Your task to perform on an android device: install app "Adobe Acrobat Reader" Image 0: 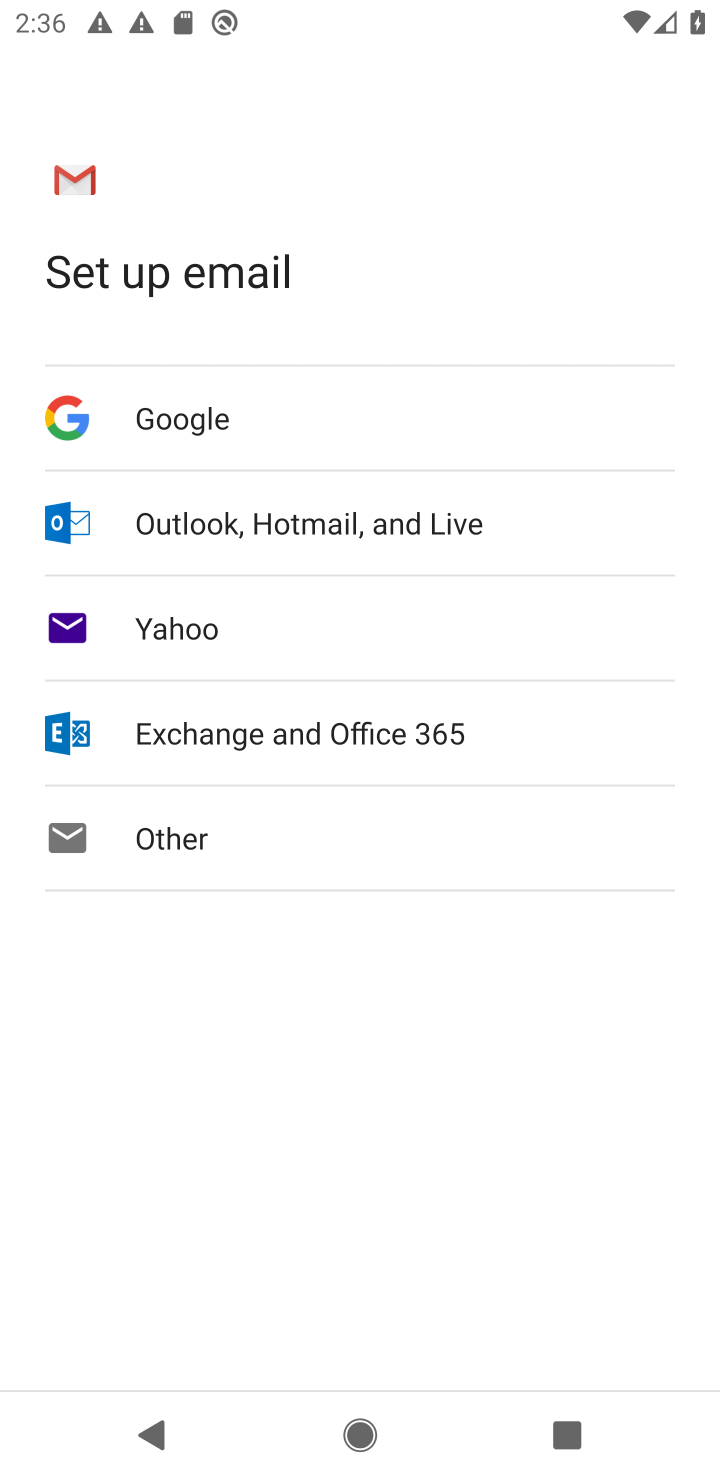
Step 0: press home button
Your task to perform on an android device: install app "Adobe Acrobat Reader" Image 1: 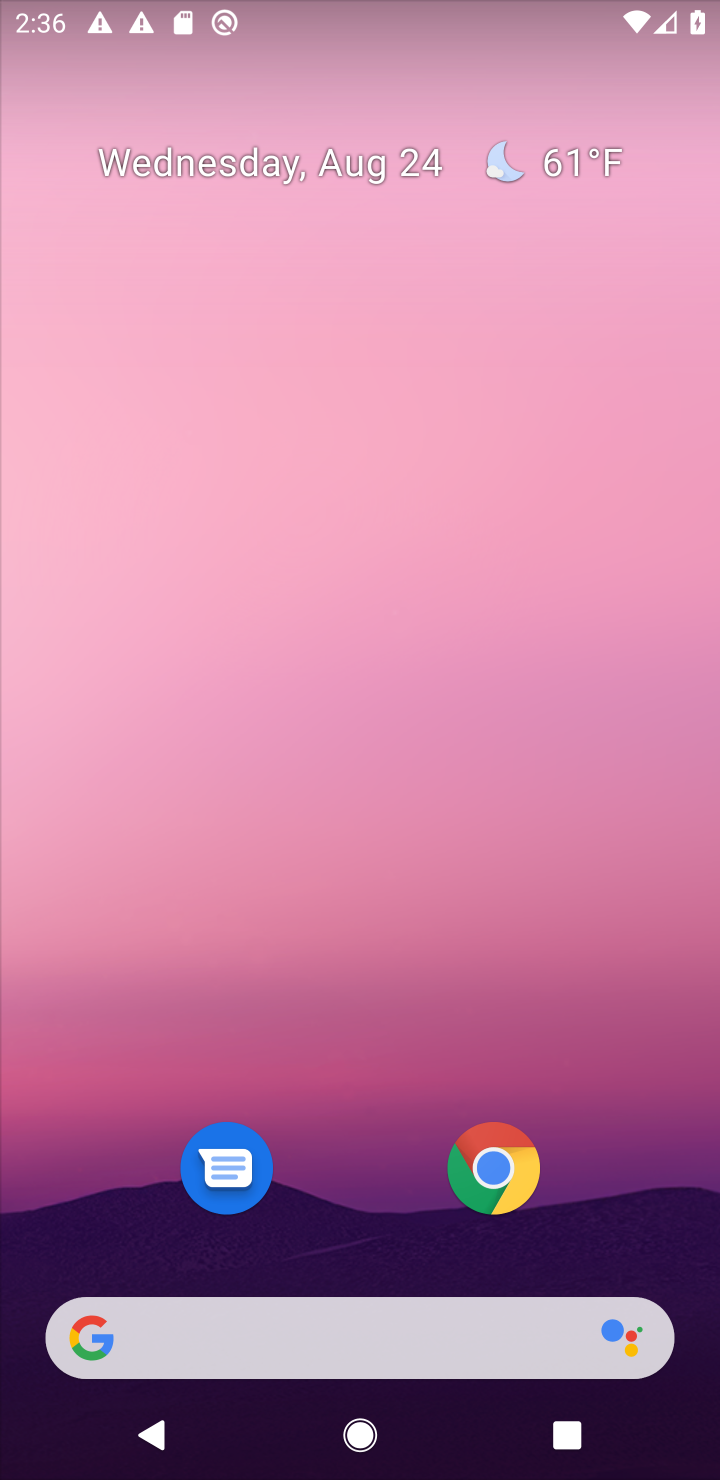
Step 1: drag from (681, 1251) to (589, 122)
Your task to perform on an android device: install app "Adobe Acrobat Reader" Image 2: 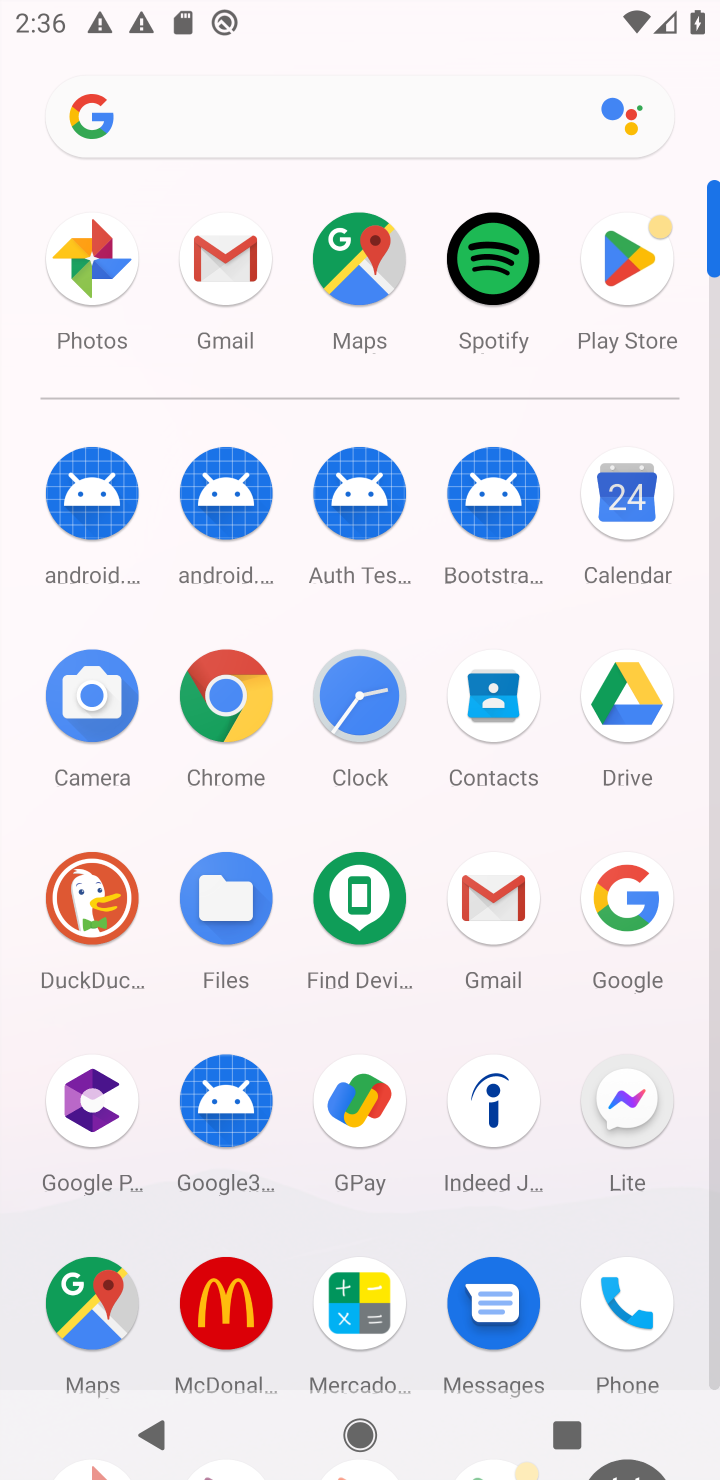
Step 2: click (713, 1305)
Your task to perform on an android device: install app "Adobe Acrobat Reader" Image 3: 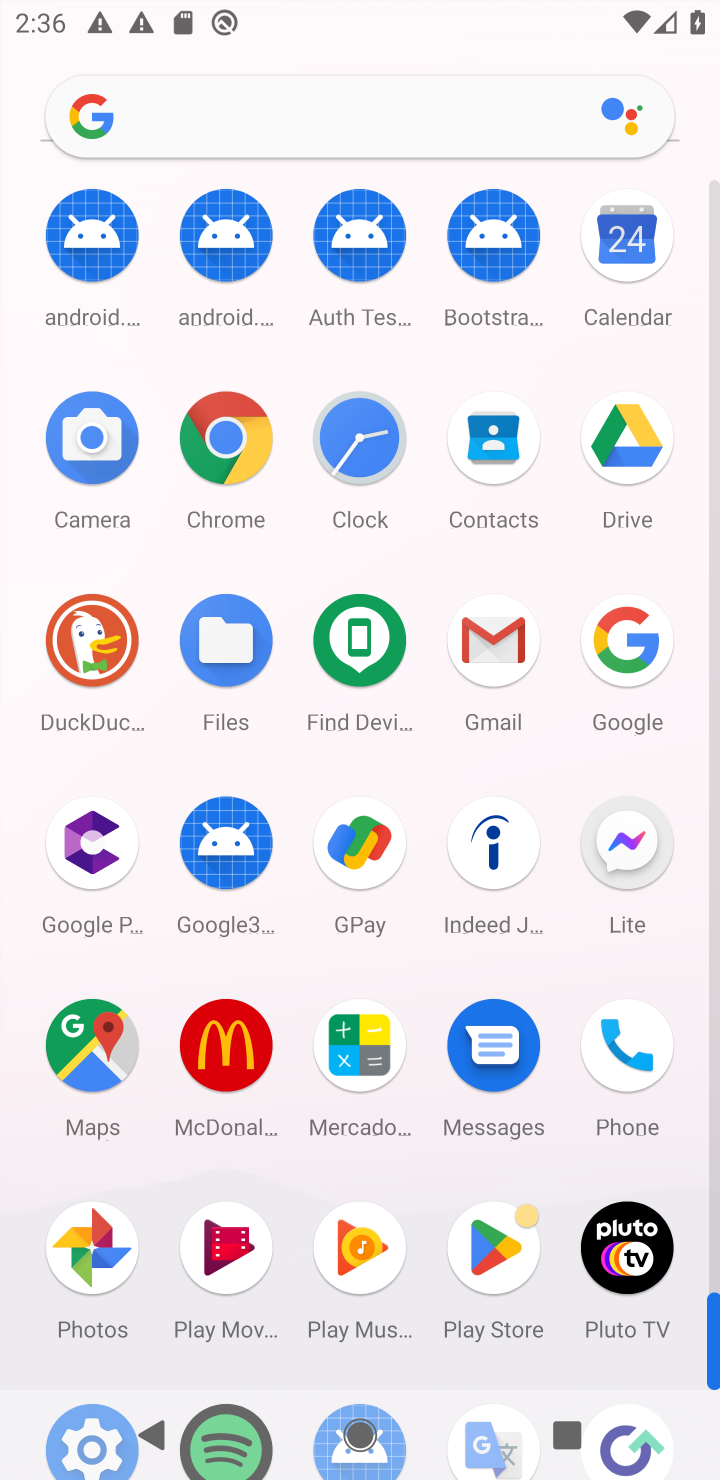
Step 3: click (501, 1243)
Your task to perform on an android device: install app "Adobe Acrobat Reader" Image 4: 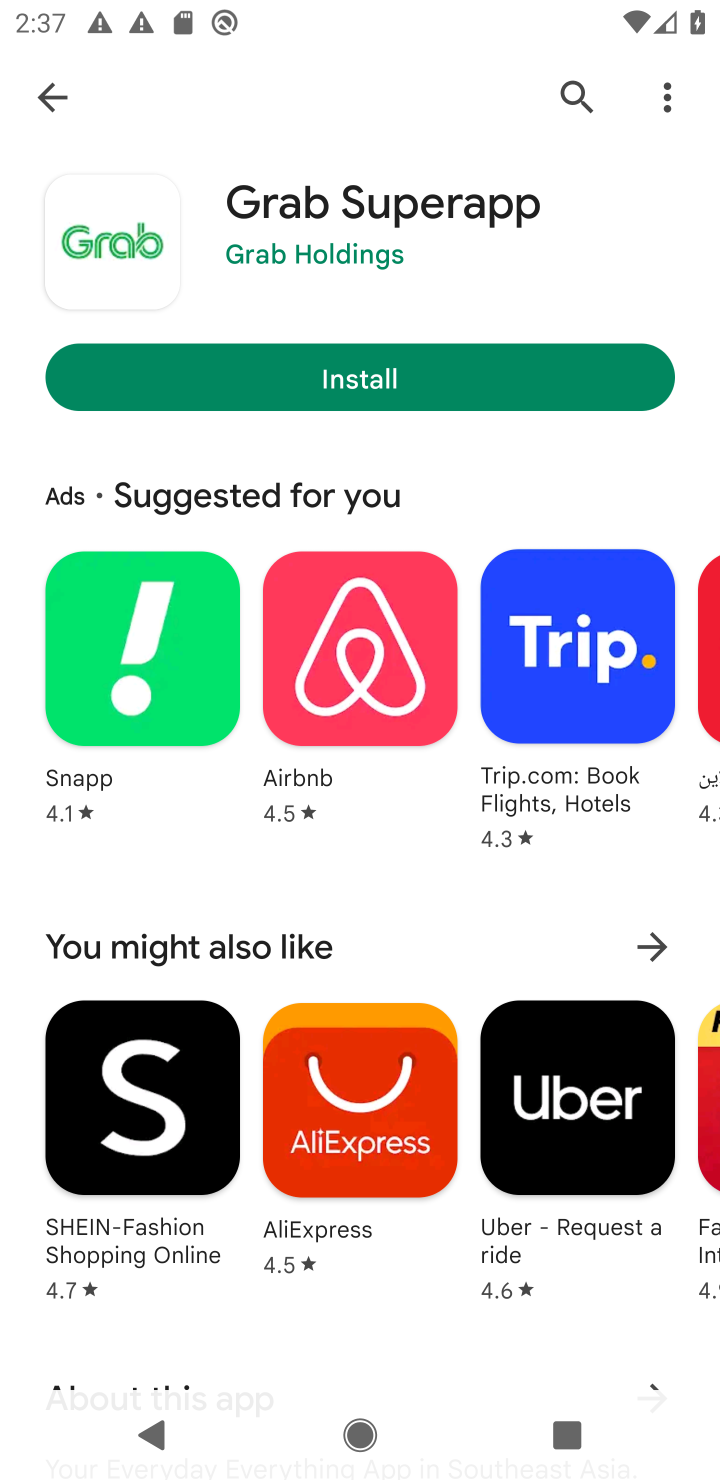
Step 4: click (571, 93)
Your task to perform on an android device: install app "Adobe Acrobat Reader" Image 5: 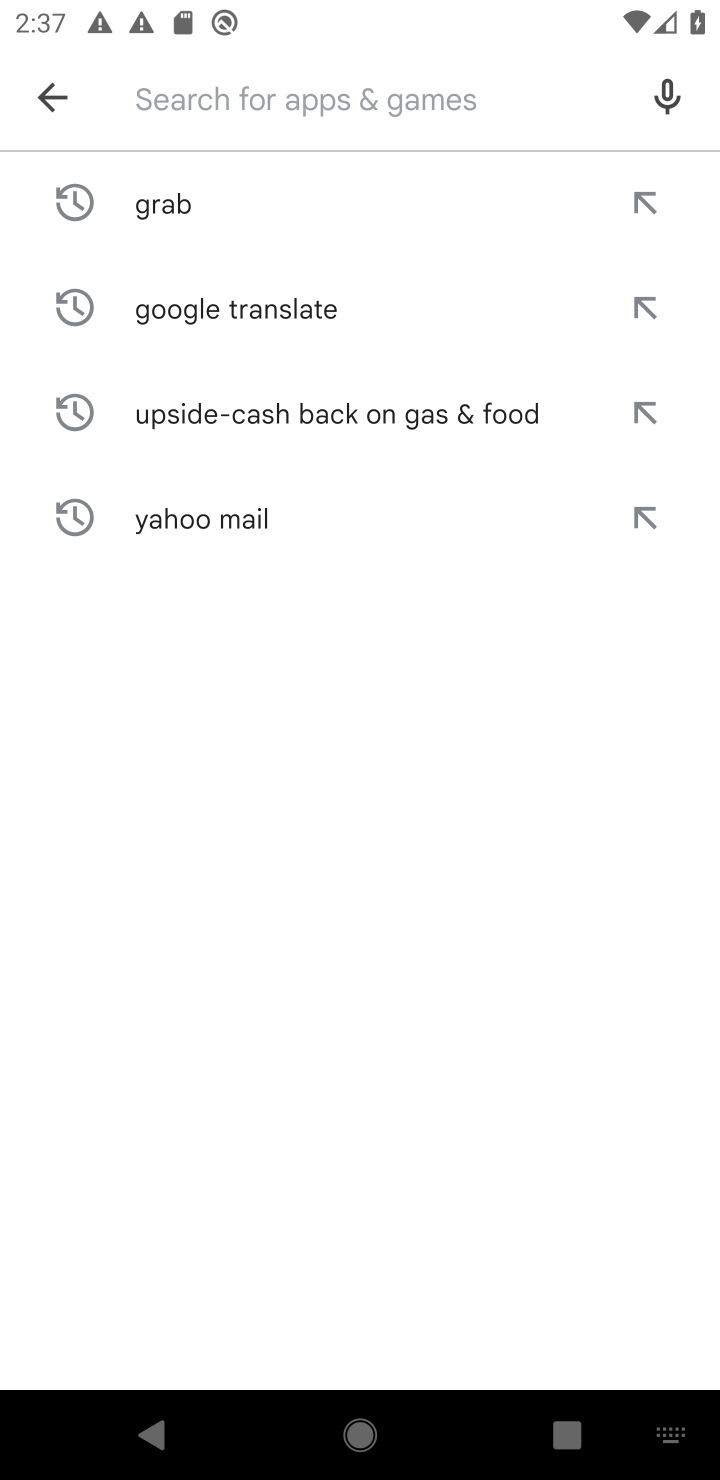
Step 5: type "Adobe Acrobat Reader"
Your task to perform on an android device: install app "Adobe Acrobat Reader" Image 6: 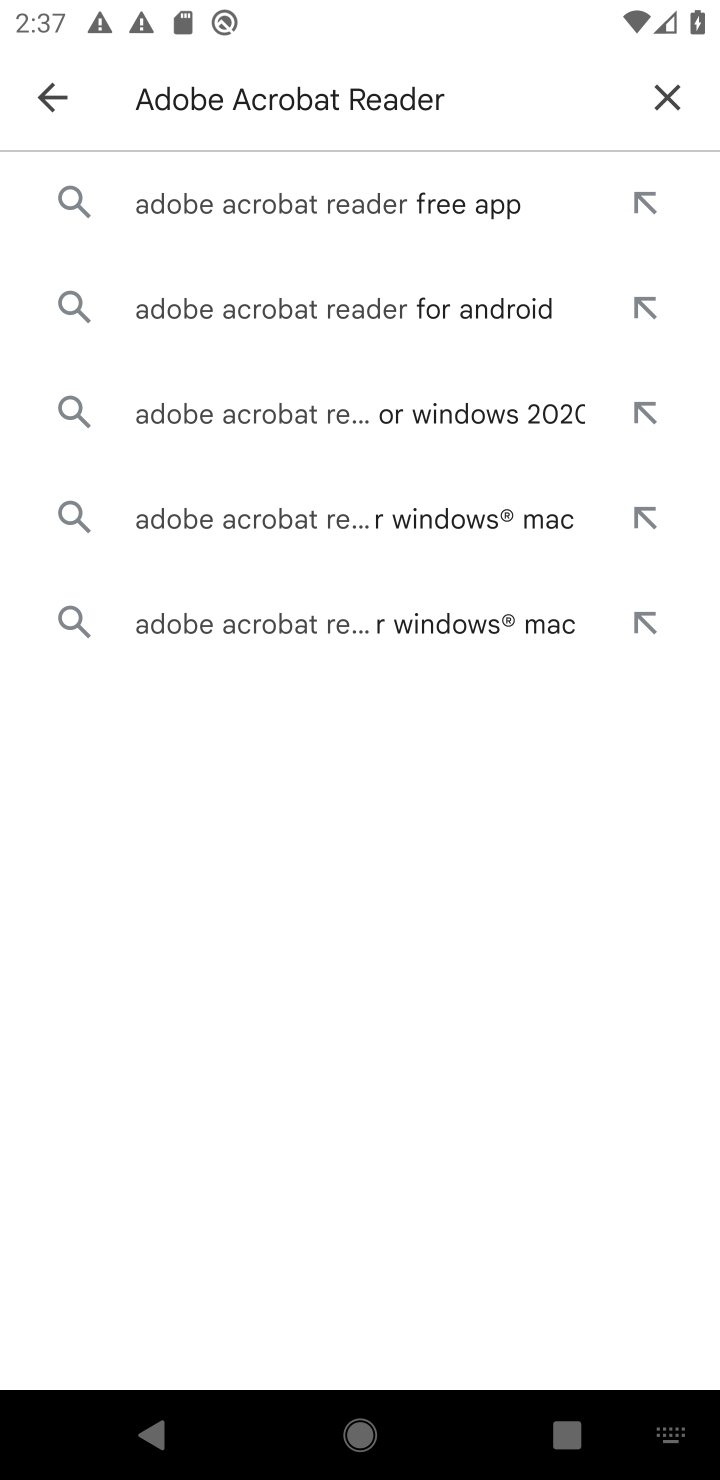
Step 6: click (199, 205)
Your task to perform on an android device: install app "Adobe Acrobat Reader" Image 7: 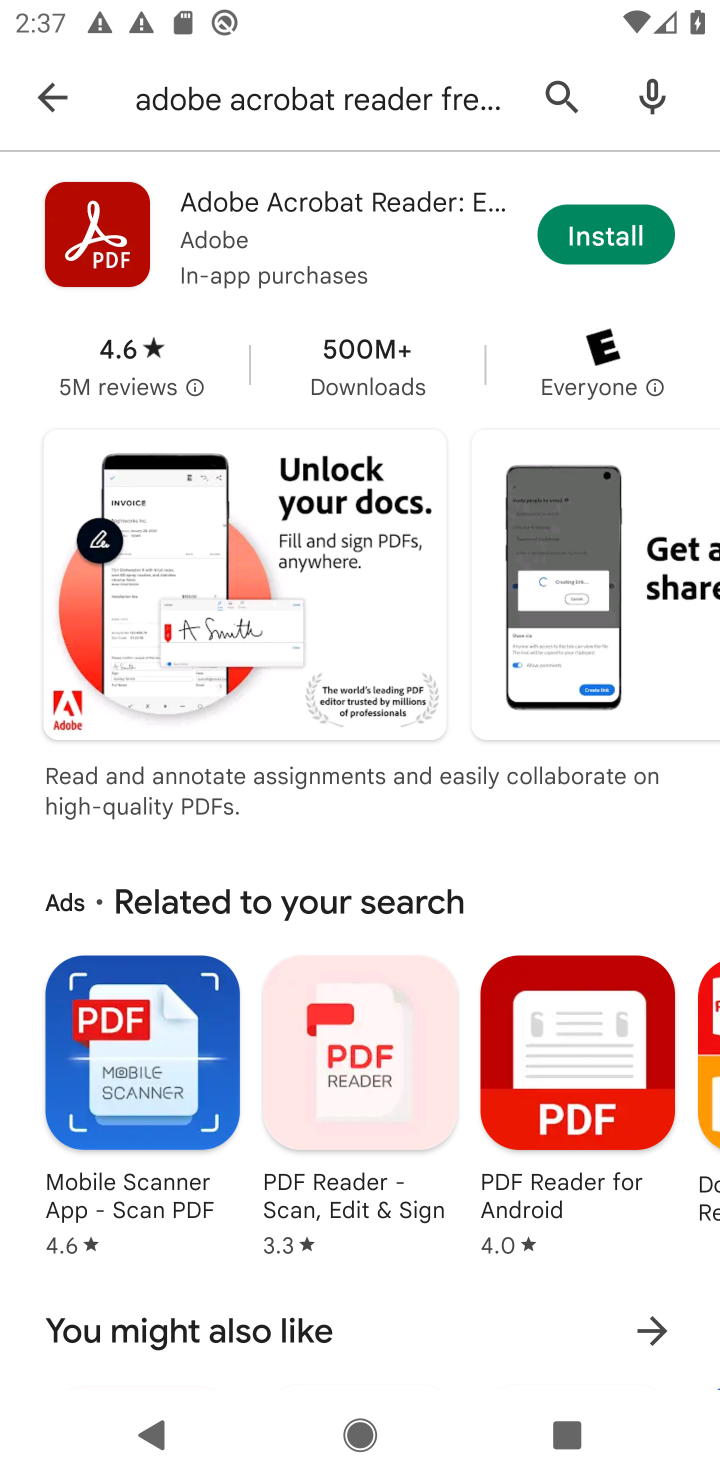
Step 7: click (244, 212)
Your task to perform on an android device: install app "Adobe Acrobat Reader" Image 8: 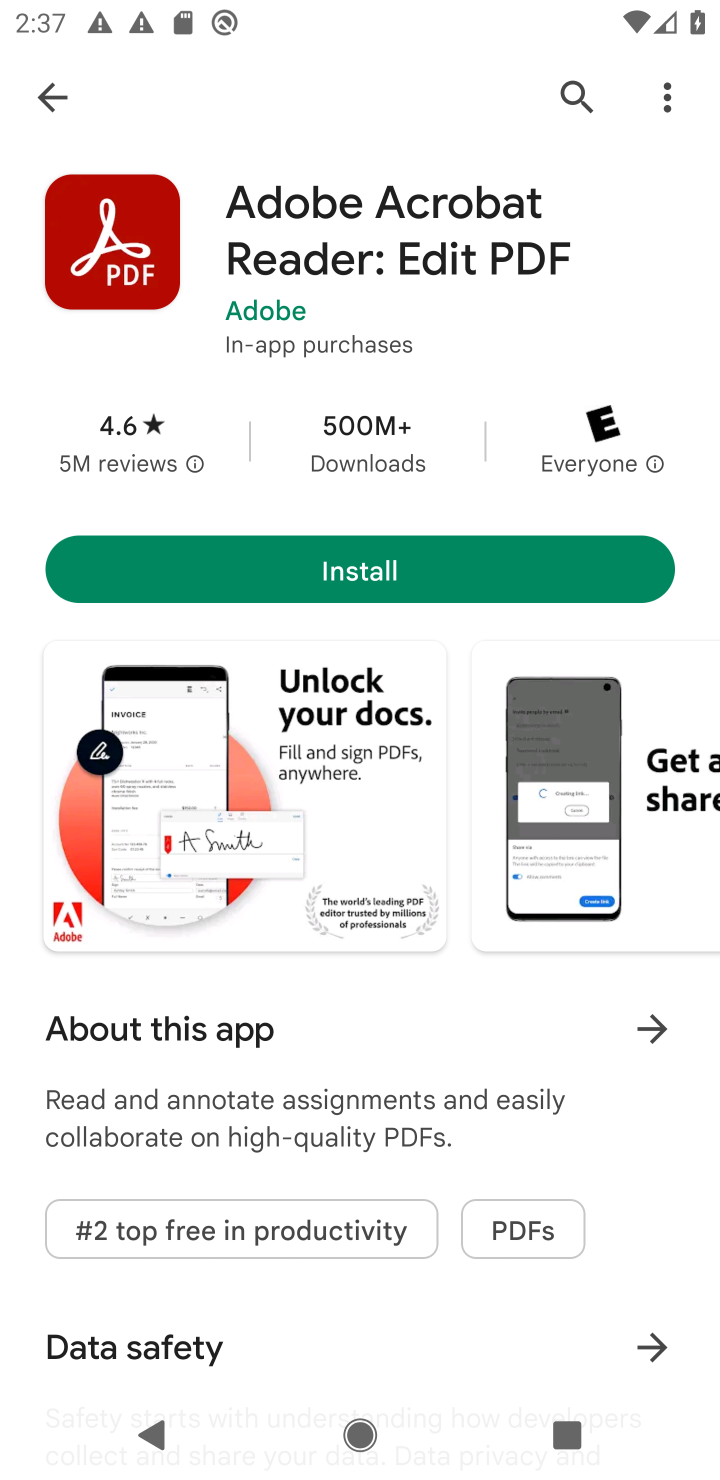
Step 8: click (357, 568)
Your task to perform on an android device: install app "Adobe Acrobat Reader" Image 9: 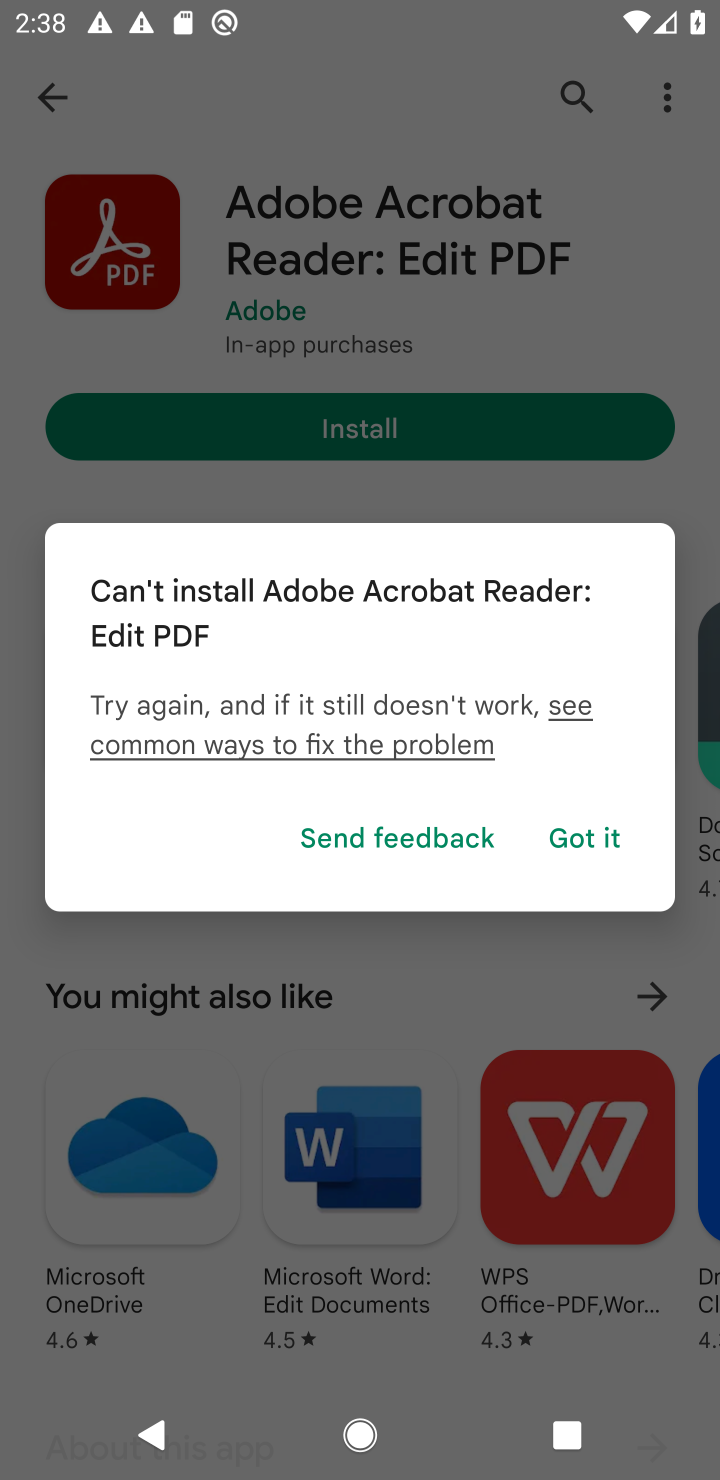
Step 9: click (605, 831)
Your task to perform on an android device: install app "Adobe Acrobat Reader" Image 10: 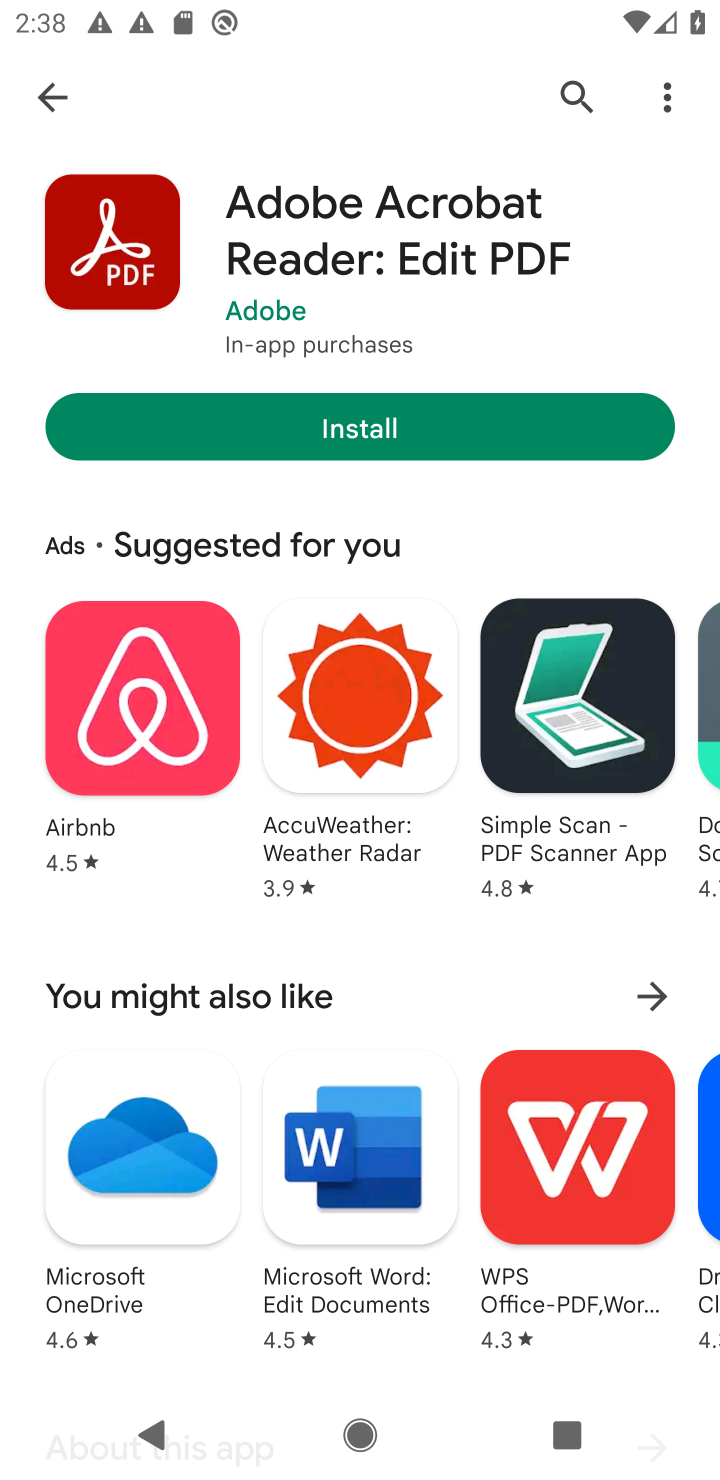
Step 10: task complete